Your task to perform on an android device: allow cookies in the chrome app Image 0: 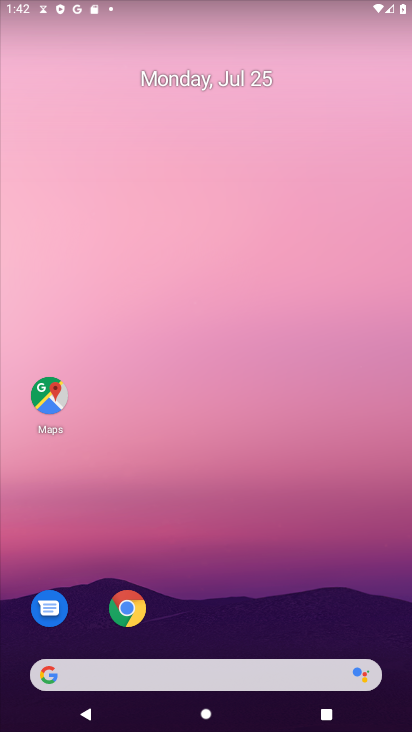
Step 0: click (127, 610)
Your task to perform on an android device: allow cookies in the chrome app Image 1: 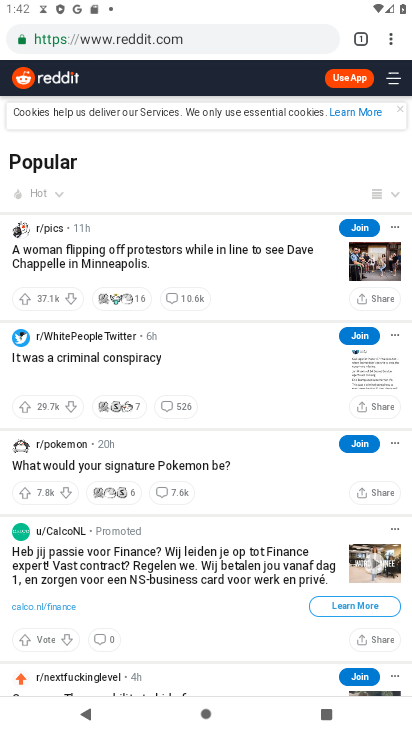
Step 1: click (391, 38)
Your task to perform on an android device: allow cookies in the chrome app Image 2: 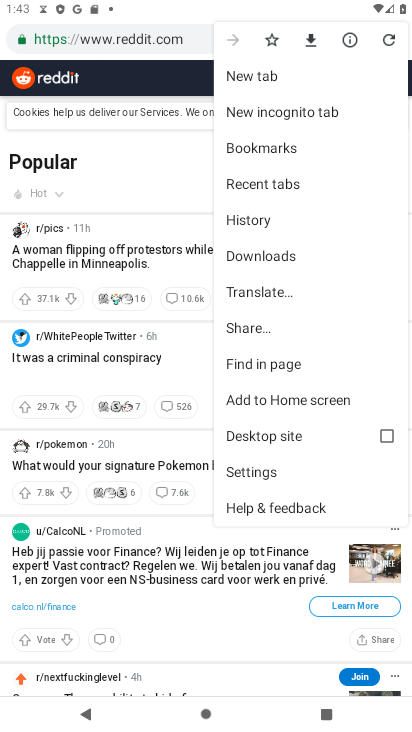
Step 2: click (263, 474)
Your task to perform on an android device: allow cookies in the chrome app Image 3: 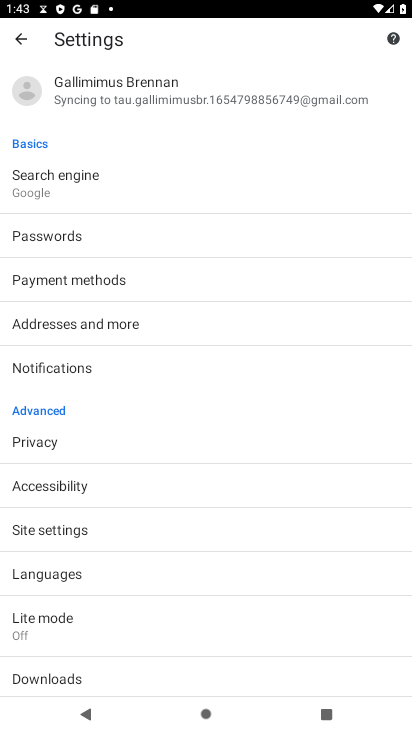
Step 3: click (45, 530)
Your task to perform on an android device: allow cookies in the chrome app Image 4: 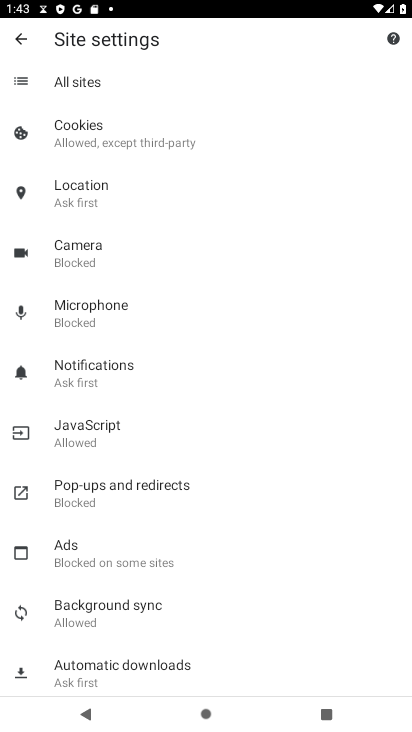
Step 4: click (102, 145)
Your task to perform on an android device: allow cookies in the chrome app Image 5: 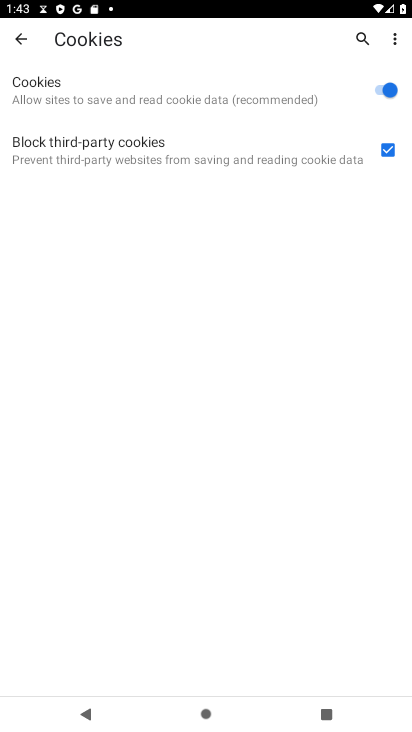
Step 5: task complete